Your task to perform on an android device: change the clock display to digital Image 0: 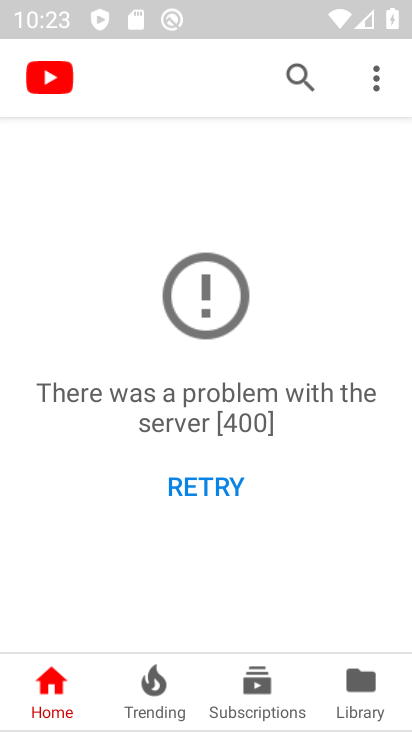
Step 0: press home button
Your task to perform on an android device: change the clock display to digital Image 1: 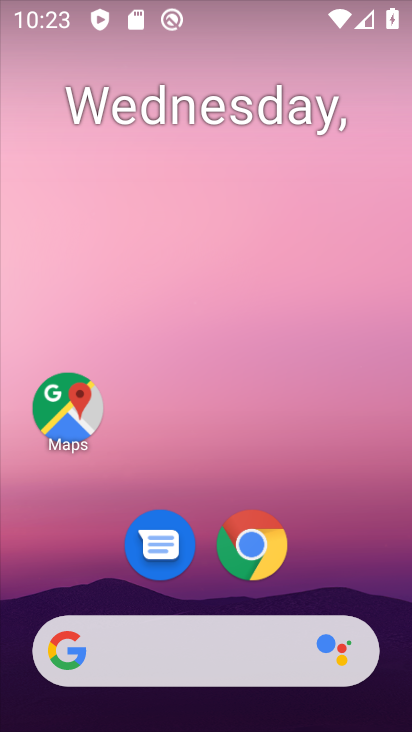
Step 1: drag from (254, 713) to (242, 89)
Your task to perform on an android device: change the clock display to digital Image 2: 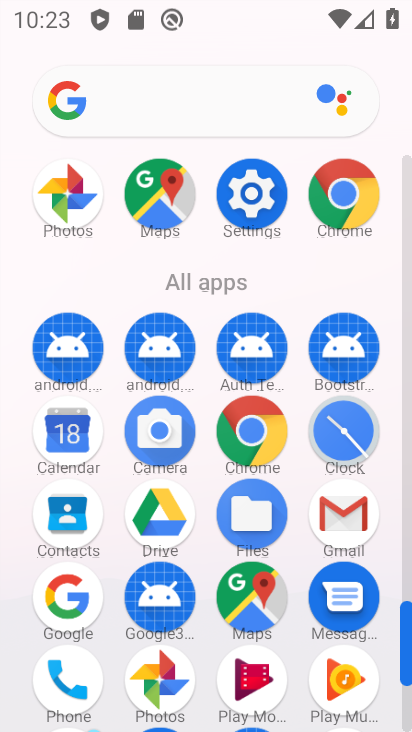
Step 2: click (341, 434)
Your task to perform on an android device: change the clock display to digital Image 3: 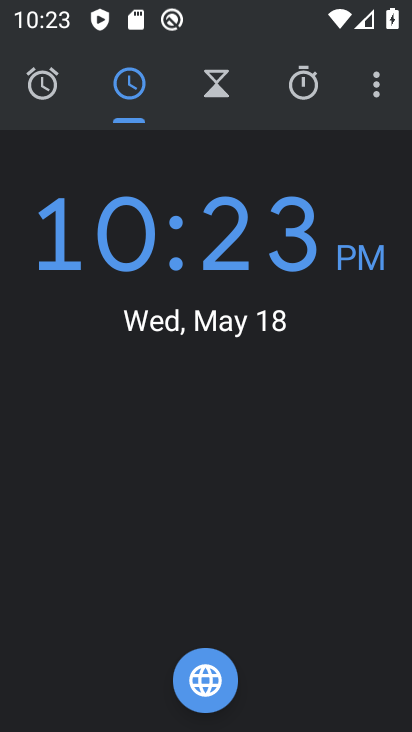
Step 3: click (373, 85)
Your task to perform on an android device: change the clock display to digital Image 4: 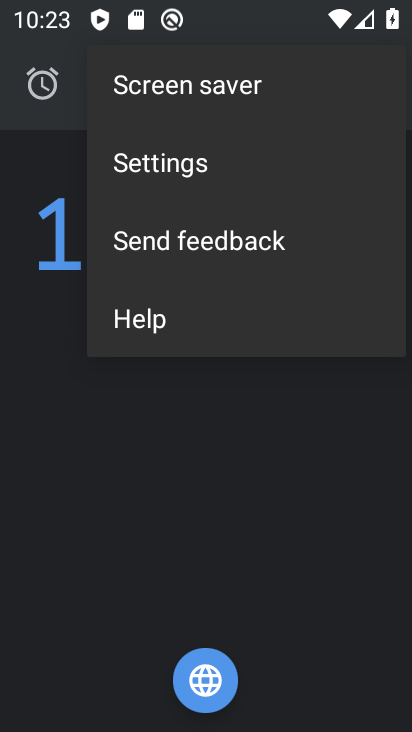
Step 4: click (183, 182)
Your task to perform on an android device: change the clock display to digital Image 5: 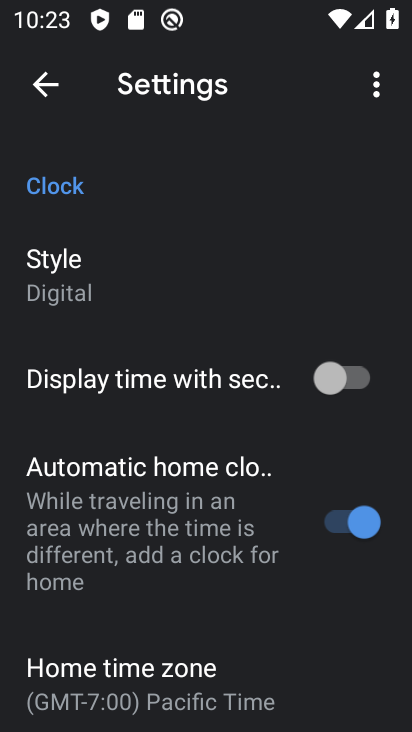
Step 5: task complete